Your task to perform on an android device: Open Google Chrome and click the shortcut for Amazon.com Image 0: 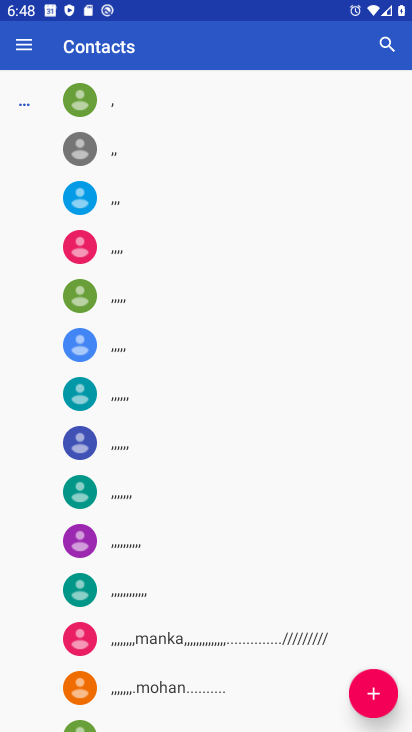
Step 0: press home button
Your task to perform on an android device: Open Google Chrome and click the shortcut for Amazon.com Image 1: 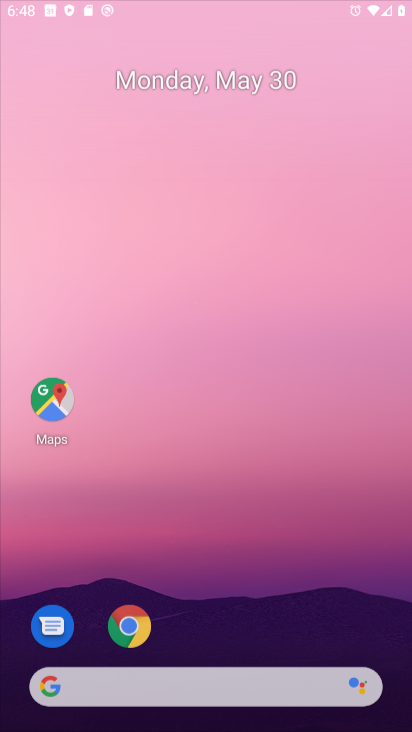
Step 1: drag from (381, 609) to (309, 0)
Your task to perform on an android device: Open Google Chrome and click the shortcut for Amazon.com Image 2: 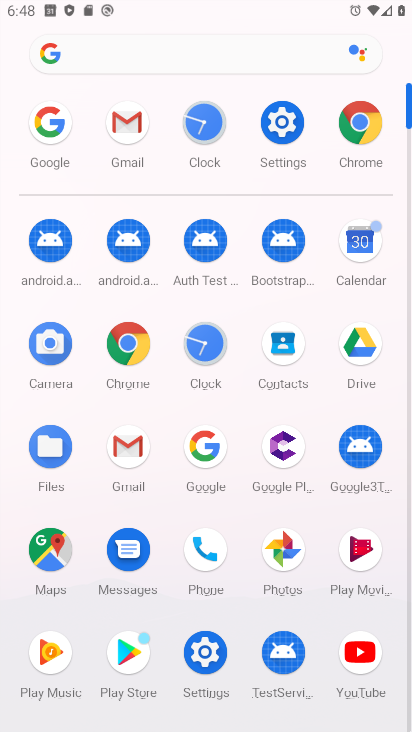
Step 2: click (356, 118)
Your task to perform on an android device: Open Google Chrome and click the shortcut for Amazon.com Image 3: 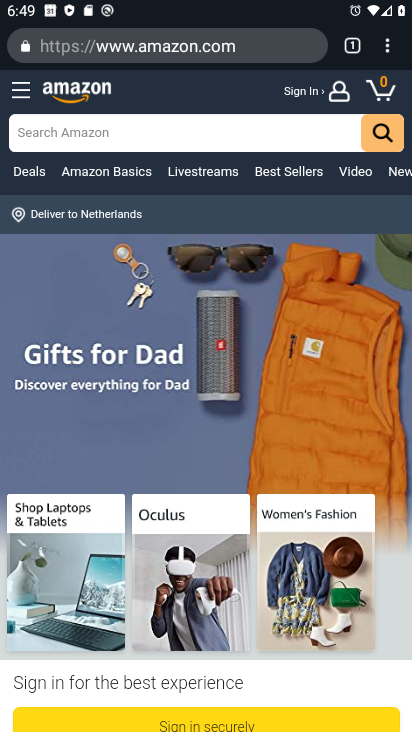
Step 3: press back button
Your task to perform on an android device: Open Google Chrome and click the shortcut for Amazon.com Image 4: 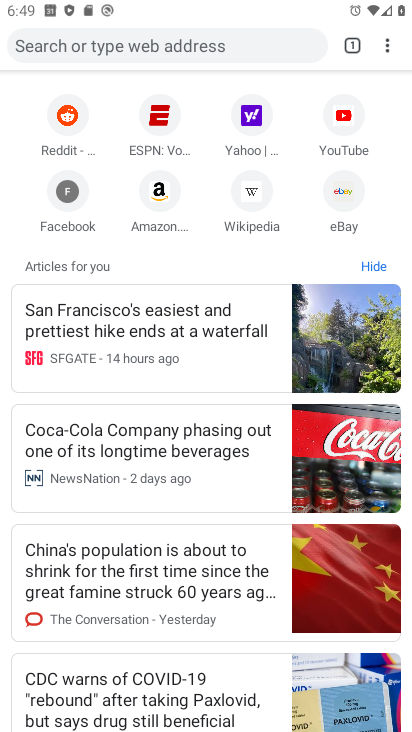
Step 4: click (156, 196)
Your task to perform on an android device: Open Google Chrome and click the shortcut for Amazon.com Image 5: 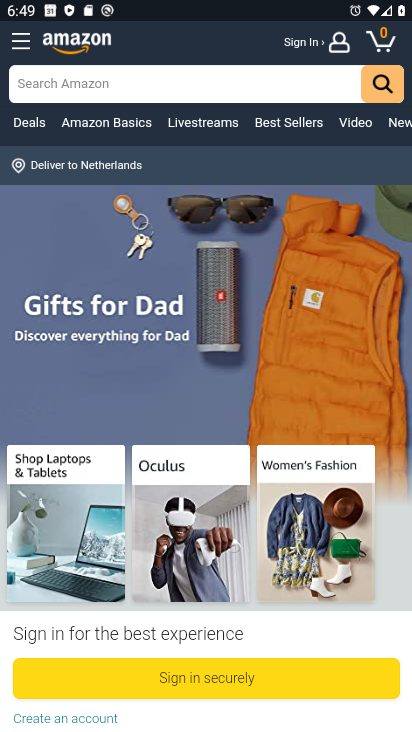
Step 5: task complete